Your task to perform on an android device: Open privacy settings Image 0: 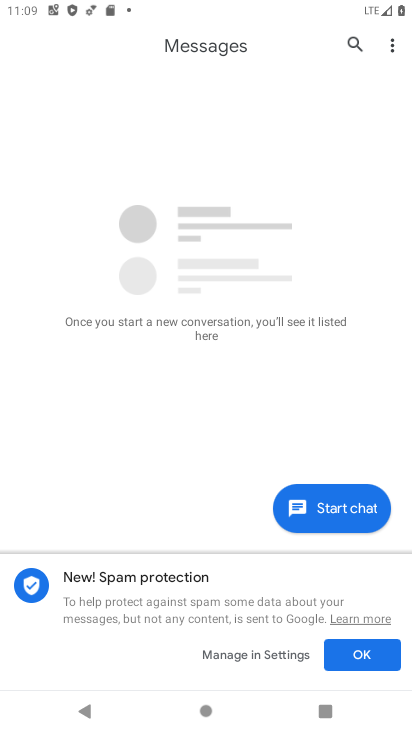
Step 0: press home button
Your task to perform on an android device: Open privacy settings Image 1: 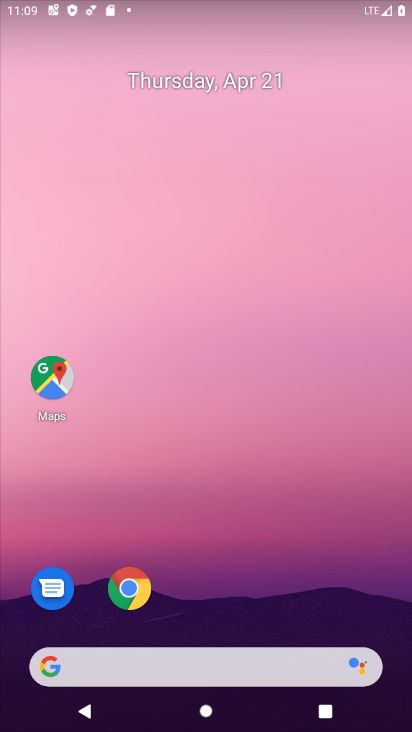
Step 1: drag from (273, 683) to (253, 120)
Your task to perform on an android device: Open privacy settings Image 2: 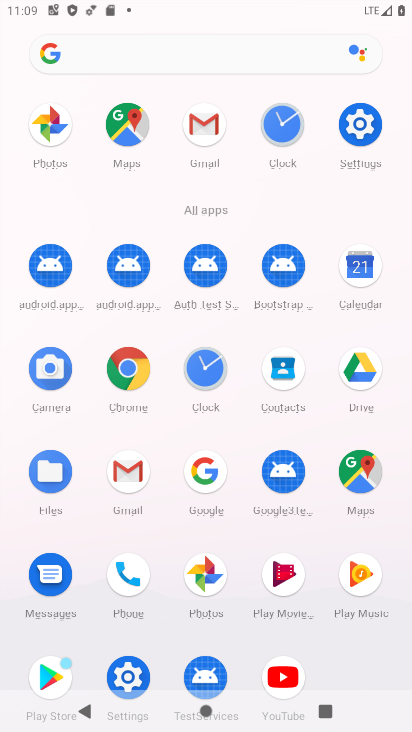
Step 2: click (355, 131)
Your task to perform on an android device: Open privacy settings Image 3: 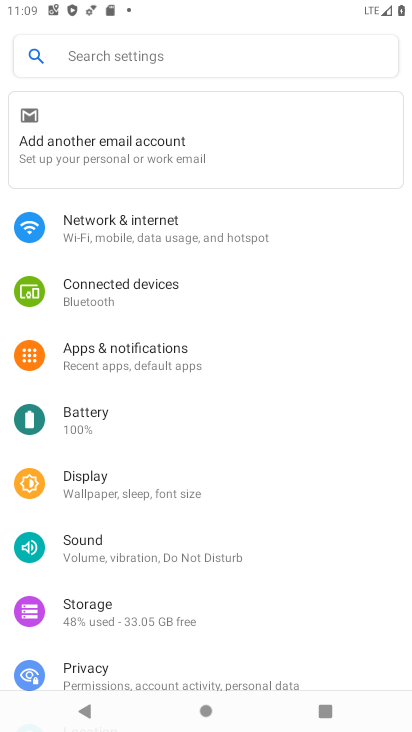
Step 3: click (84, 658)
Your task to perform on an android device: Open privacy settings Image 4: 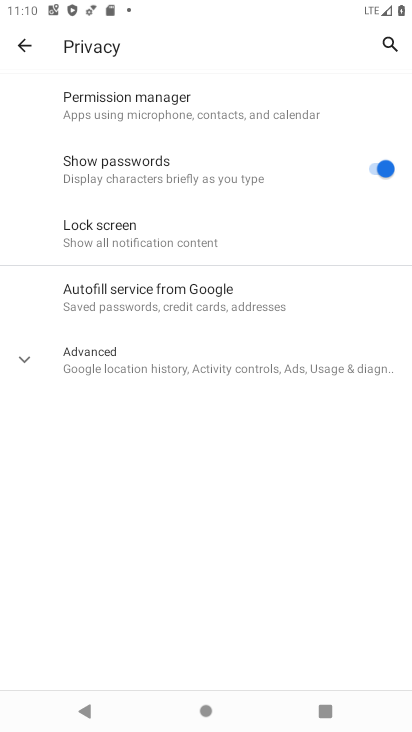
Step 4: click (49, 358)
Your task to perform on an android device: Open privacy settings Image 5: 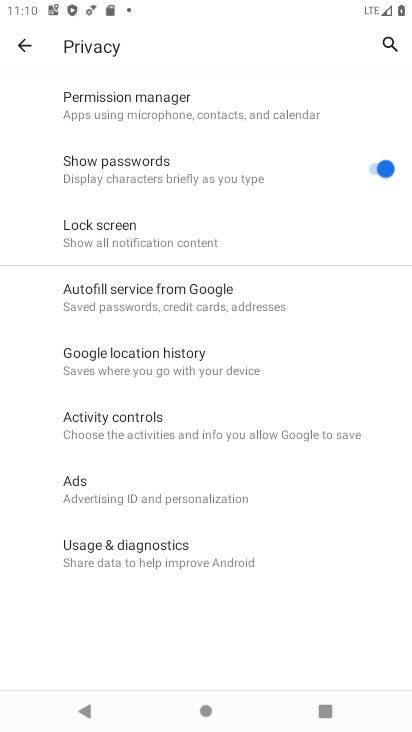
Step 5: task complete